Your task to perform on an android device: turn vacation reply on in the gmail app Image 0: 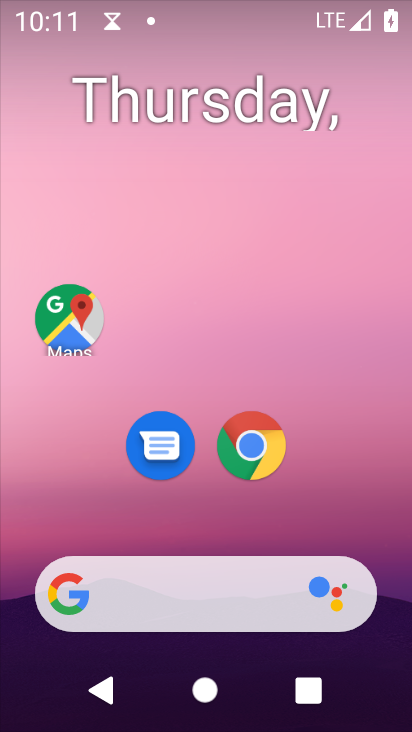
Step 0: drag from (376, 530) to (286, 101)
Your task to perform on an android device: turn vacation reply on in the gmail app Image 1: 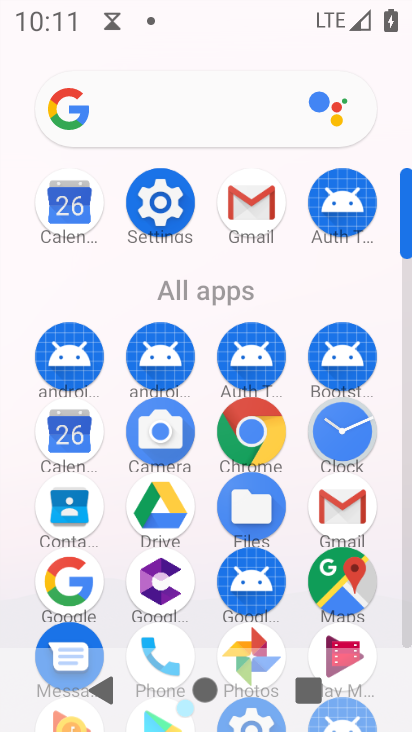
Step 1: click (260, 206)
Your task to perform on an android device: turn vacation reply on in the gmail app Image 2: 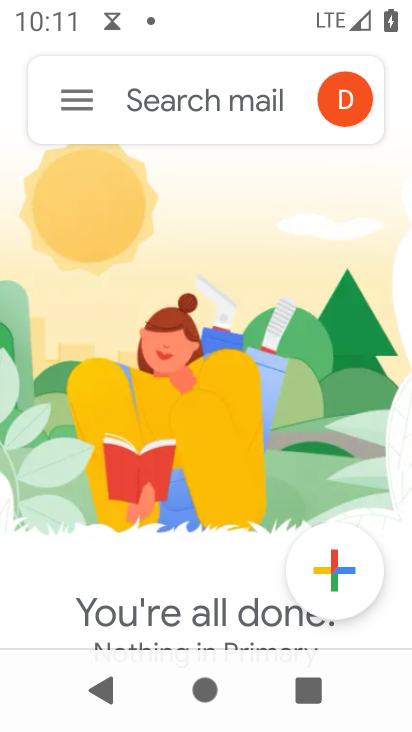
Step 2: click (78, 98)
Your task to perform on an android device: turn vacation reply on in the gmail app Image 3: 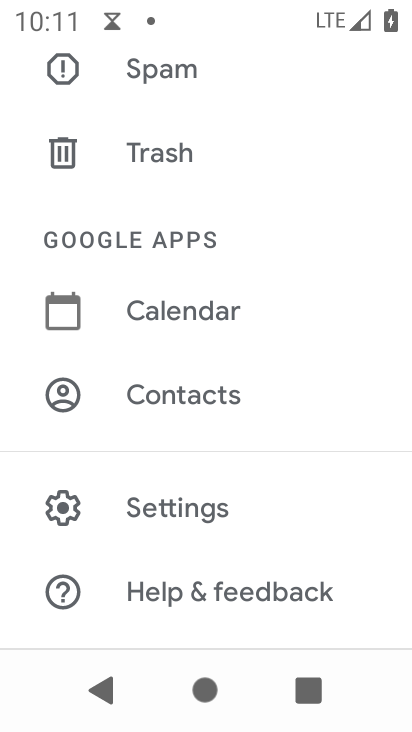
Step 3: click (203, 489)
Your task to perform on an android device: turn vacation reply on in the gmail app Image 4: 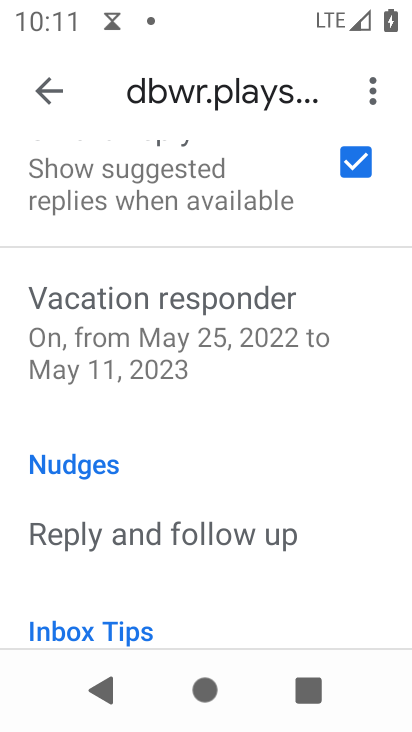
Step 4: click (234, 351)
Your task to perform on an android device: turn vacation reply on in the gmail app Image 5: 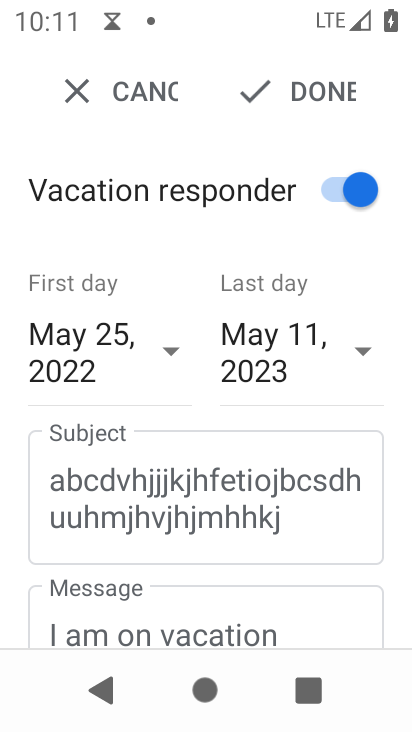
Step 5: click (333, 100)
Your task to perform on an android device: turn vacation reply on in the gmail app Image 6: 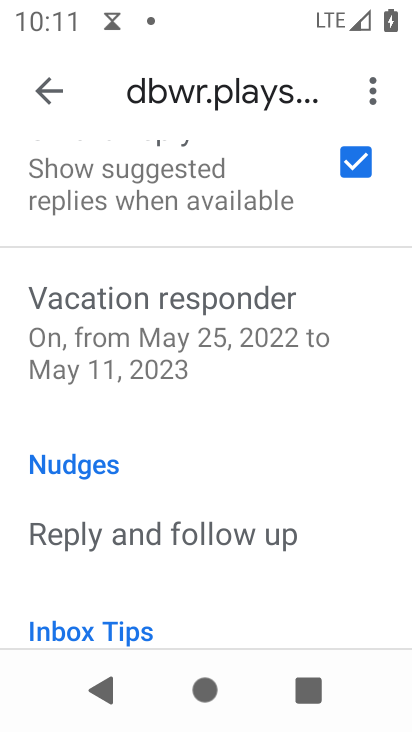
Step 6: task complete